Your task to perform on an android device: see tabs open on other devices in the chrome app Image 0: 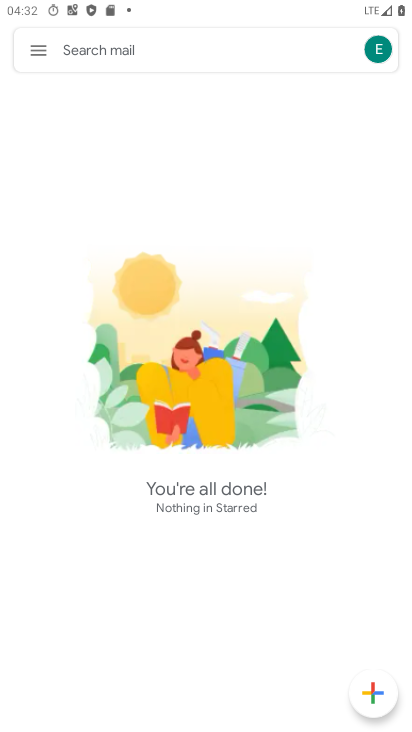
Step 0: press home button
Your task to perform on an android device: see tabs open on other devices in the chrome app Image 1: 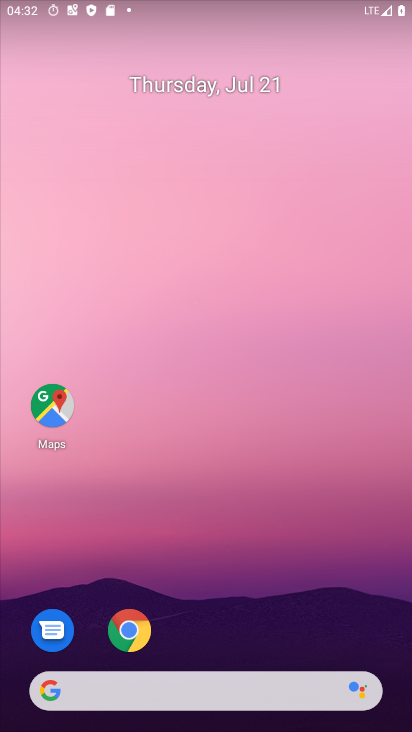
Step 1: click (144, 626)
Your task to perform on an android device: see tabs open on other devices in the chrome app Image 2: 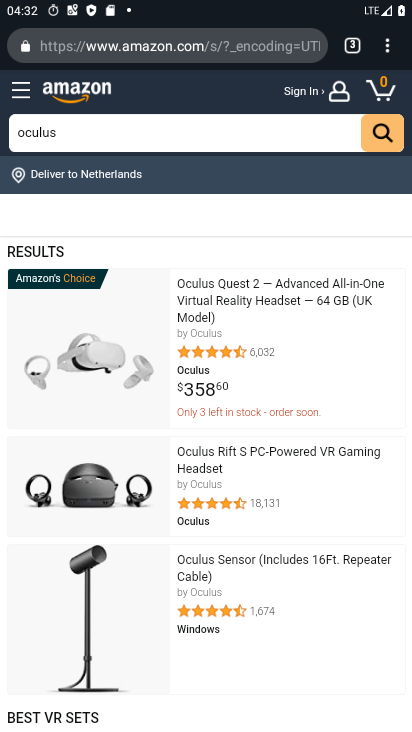
Step 2: click (380, 40)
Your task to perform on an android device: see tabs open on other devices in the chrome app Image 3: 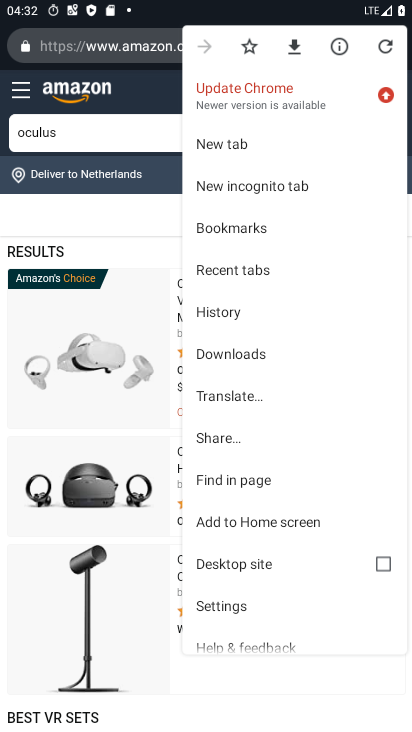
Step 3: click (245, 269)
Your task to perform on an android device: see tabs open on other devices in the chrome app Image 4: 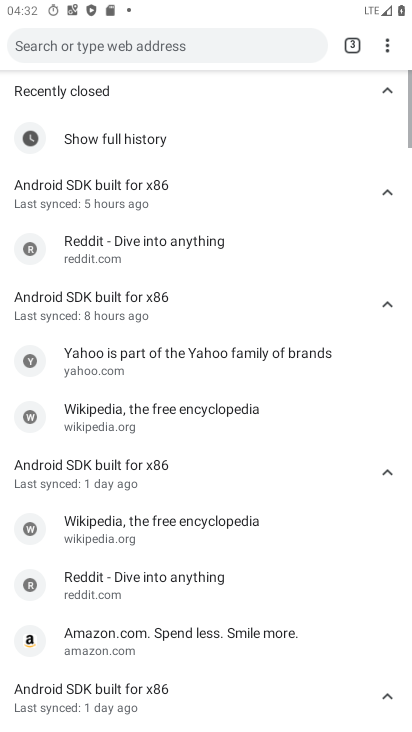
Step 4: task complete